Your task to perform on an android device: toggle improve location accuracy Image 0: 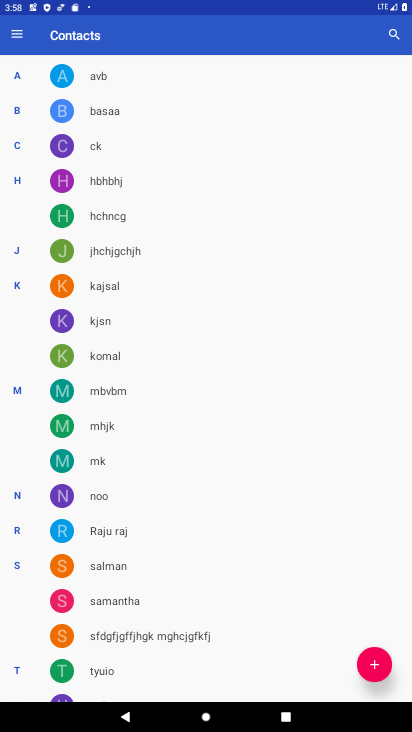
Step 0: press home button
Your task to perform on an android device: toggle improve location accuracy Image 1: 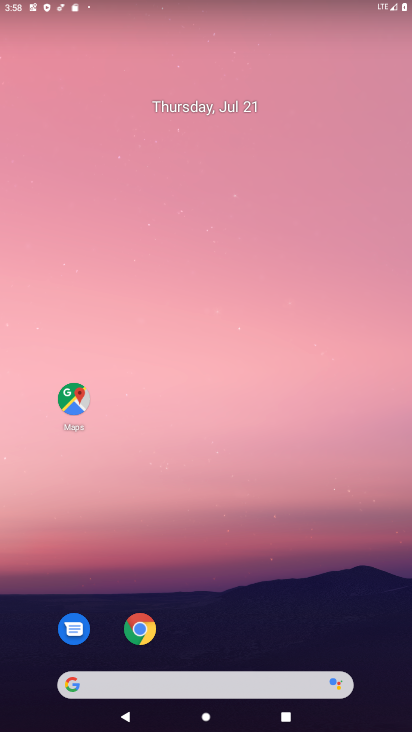
Step 1: drag from (381, 649) to (287, 148)
Your task to perform on an android device: toggle improve location accuracy Image 2: 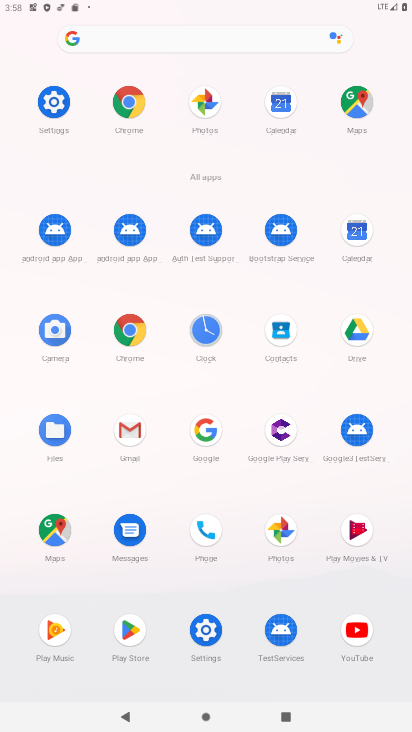
Step 2: click (59, 98)
Your task to perform on an android device: toggle improve location accuracy Image 3: 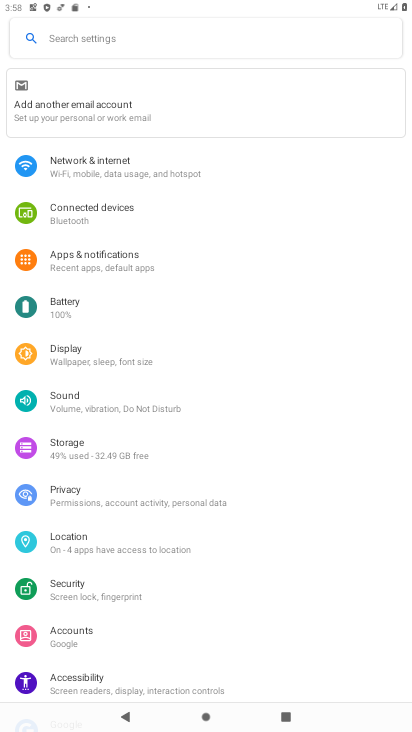
Step 3: click (172, 545)
Your task to perform on an android device: toggle improve location accuracy Image 4: 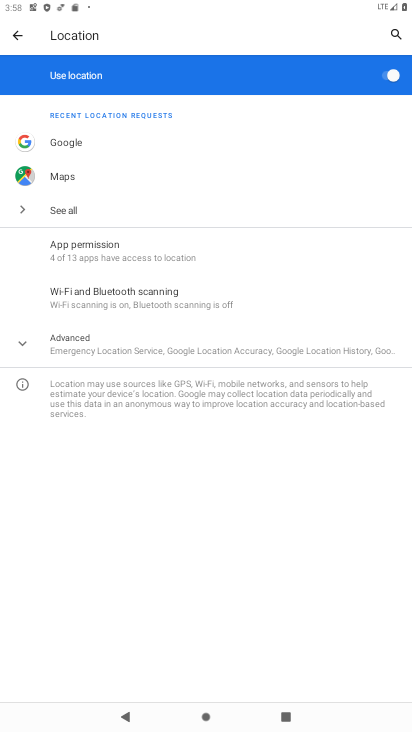
Step 4: click (185, 342)
Your task to perform on an android device: toggle improve location accuracy Image 5: 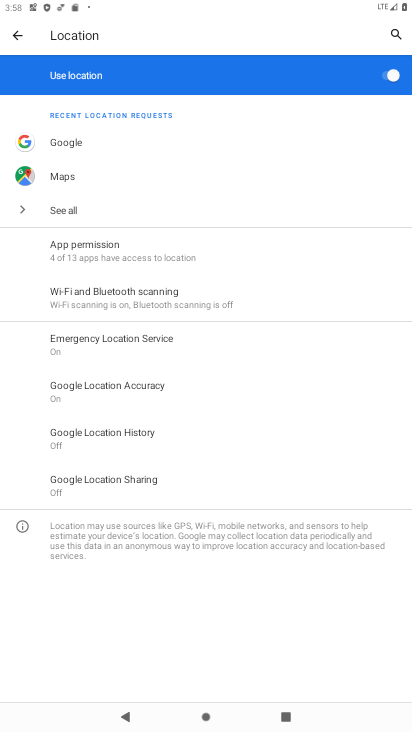
Step 5: click (178, 393)
Your task to perform on an android device: toggle improve location accuracy Image 6: 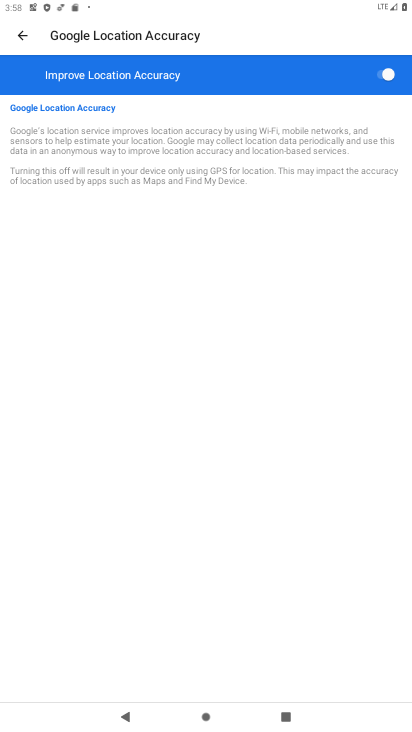
Step 6: click (380, 80)
Your task to perform on an android device: toggle improve location accuracy Image 7: 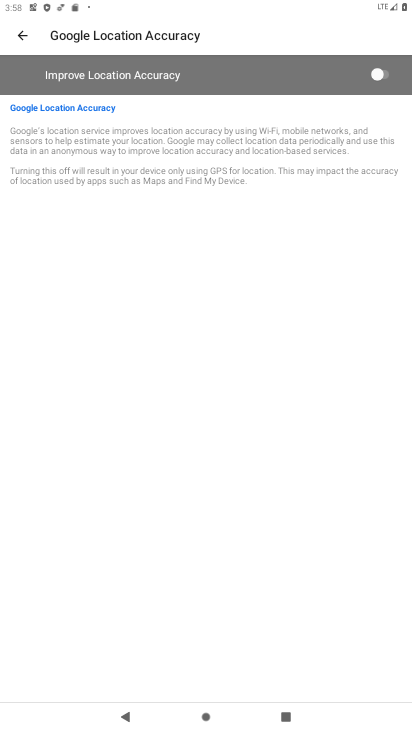
Step 7: task complete